Your task to perform on an android device: Clear the shopping cart on ebay.com. Search for razer thresher on ebay.com, select the first entry, and add it to the cart. Image 0: 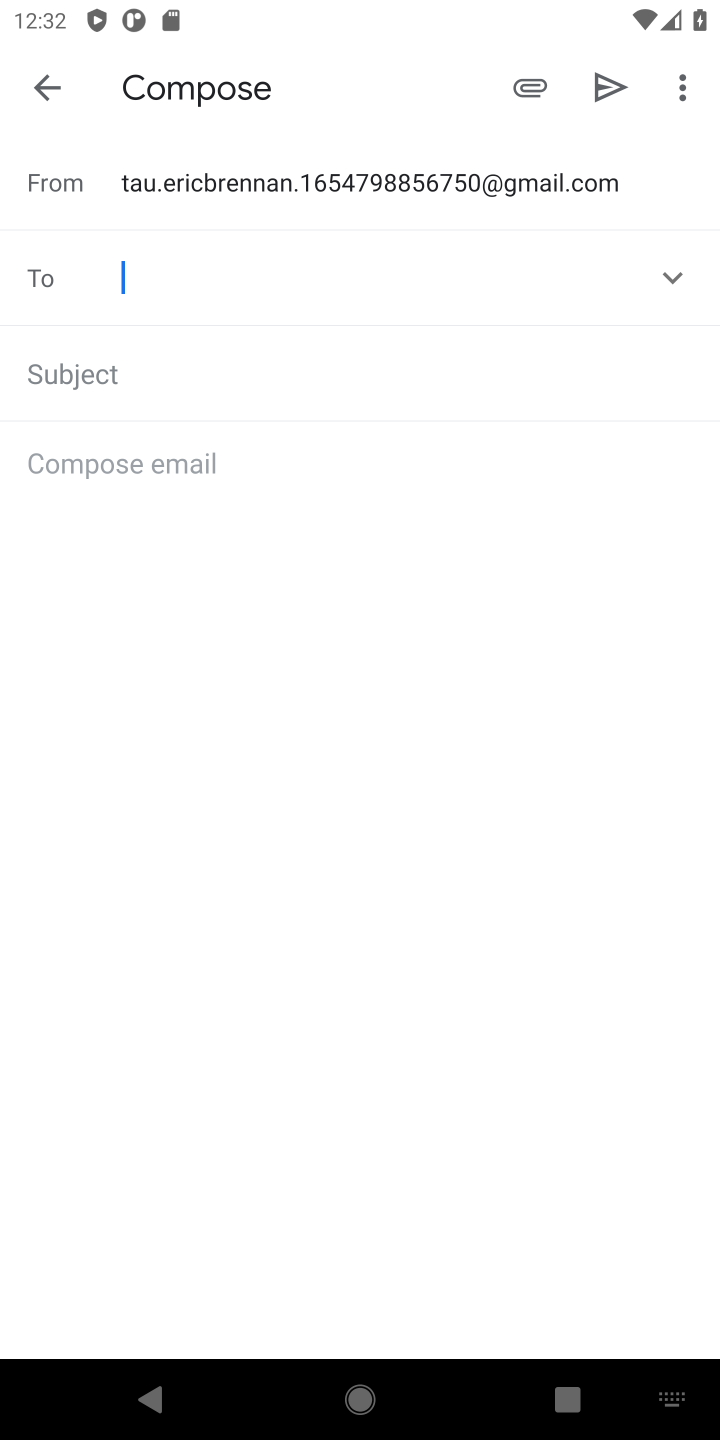
Step 0: task complete